Your task to perform on an android device: Open sound settings Image 0: 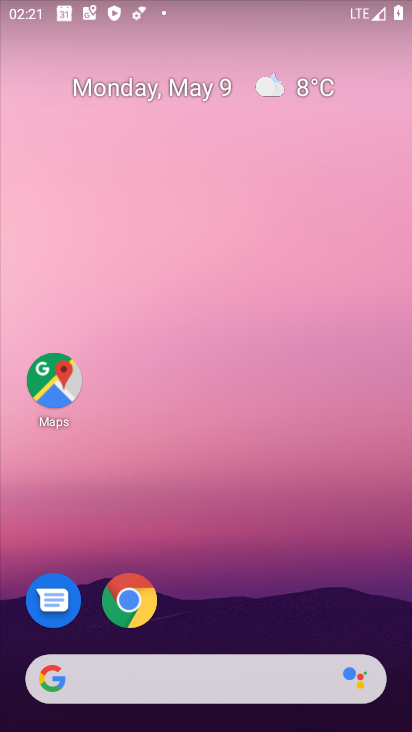
Step 0: drag from (216, 634) to (230, 106)
Your task to perform on an android device: Open sound settings Image 1: 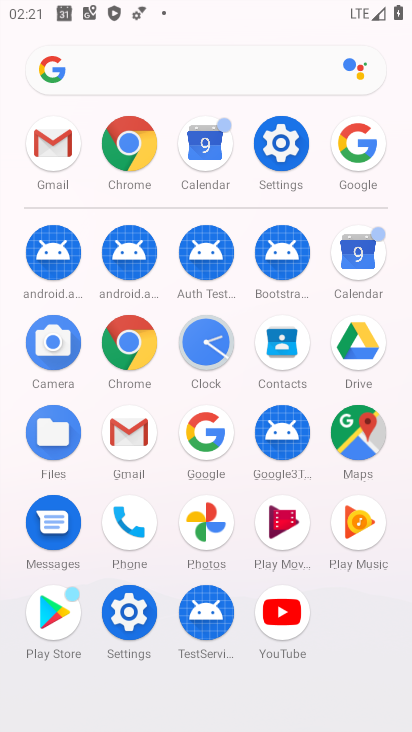
Step 1: click (276, 136)
Your task to perform on an android device: Open sound settings Image 2: 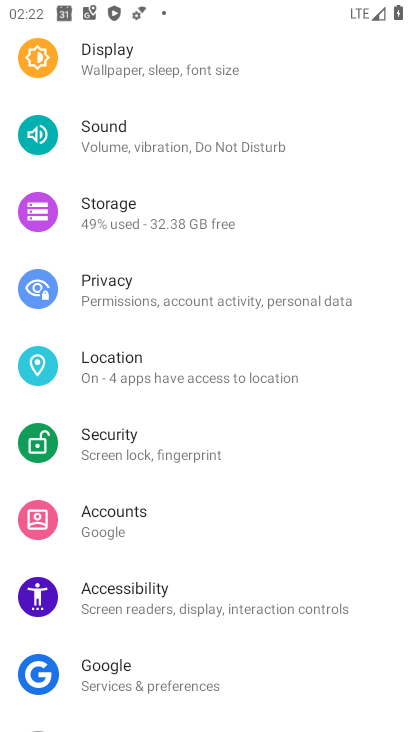
Step 2: click (126, 126)
Your task to perform on an android device: Open sound settings Image 3: 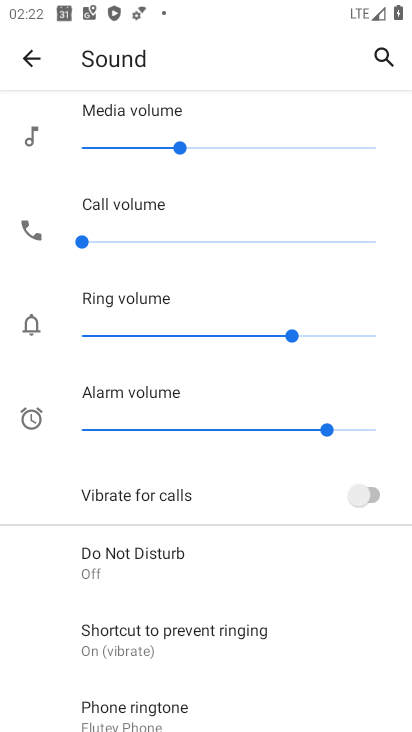
Step 3: drag from (70, 612) to (59, 119)
Your task to perform on an android device: Open sound settings Image 4: 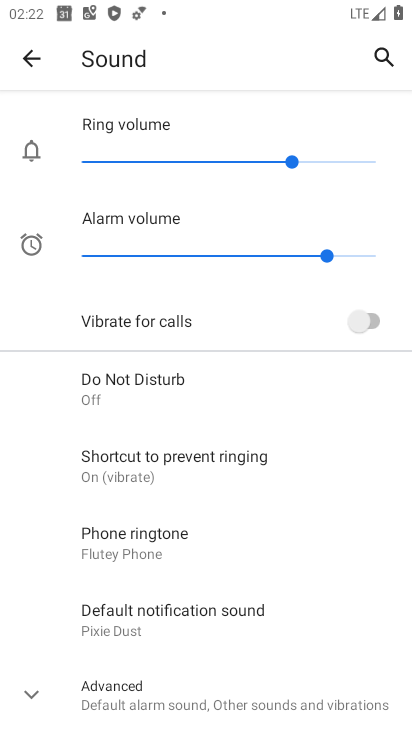
Step 4: click (32, 693)
Your task to perform on an android device: Open sound settings Image 5: 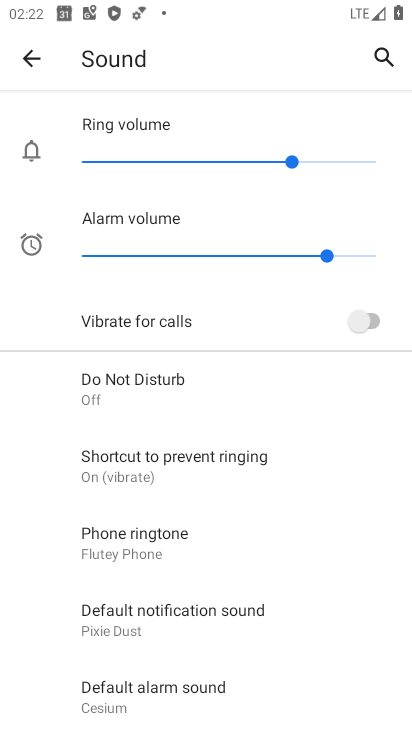
Step 5: task complete